Your task to perform on an android device: turn off picture-in-picture Image 0: 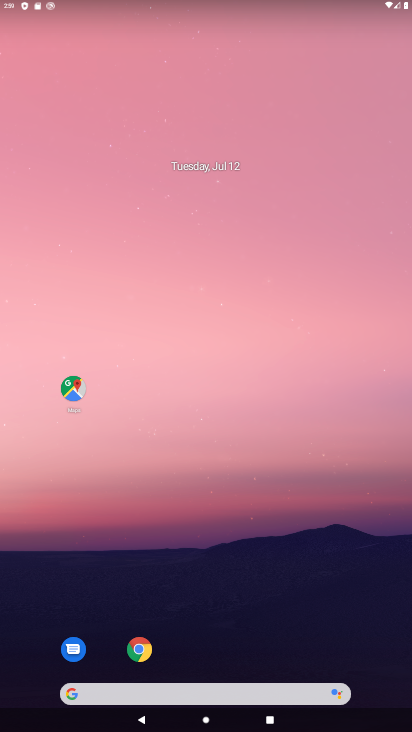
Step 0: click (142, 649)
Your task to perform on an android device: turn off picture-in-picture Image 1: 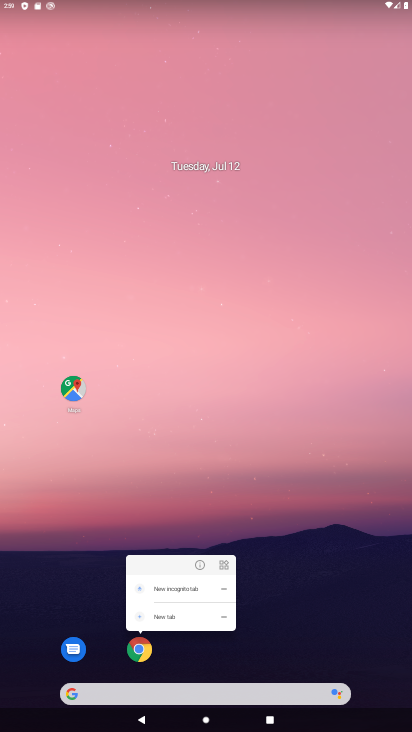
Step 1: click (199, 563)
Your task to perform on an android device: turn off picture-in-picture Image 2: 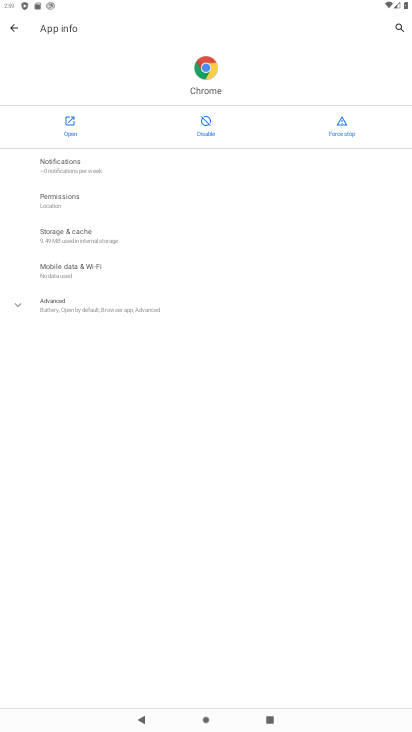
Step 2: click (58, 300)
Your task to perform on an android device: turn off picture-in-picture Image 3: 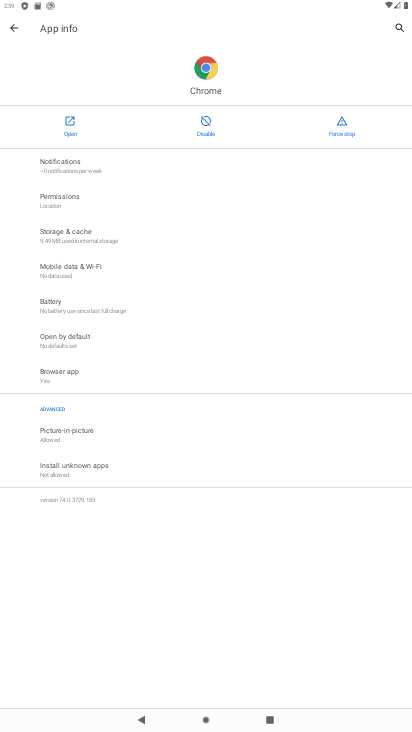
Step 3: click (82, 444)
Your task to perform on an android device: turn off picture-in-picture Image 4: 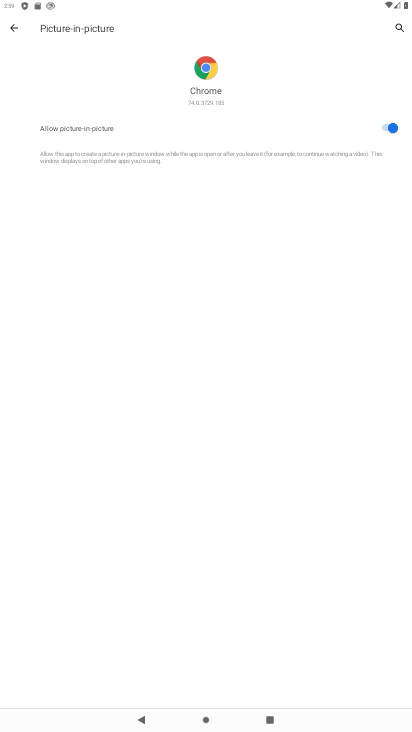
Step 4: click (388, 126)
Your task to perform on an android device: turn off picture-in-picture Image 5: 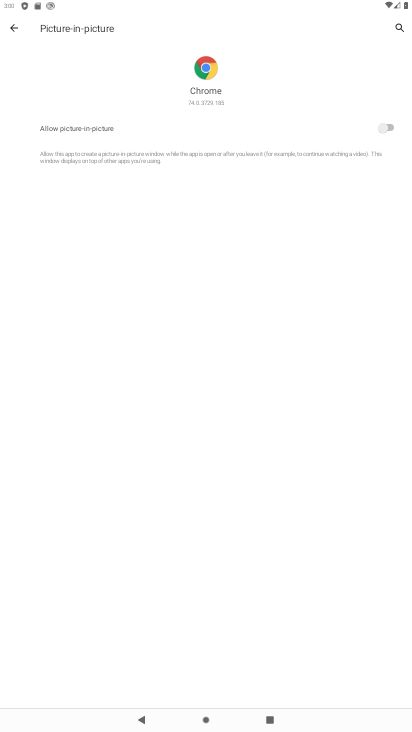
Step 5: task complete